Your task to perform on an android device: open a bookmark in the chrome app Image 0: 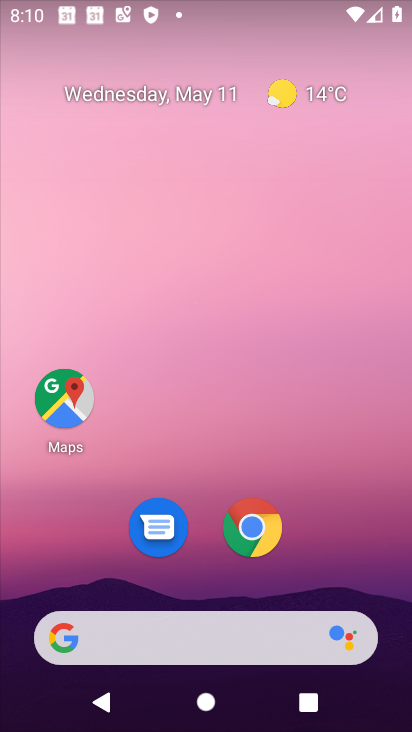
Step 0: click (275, 515)
Your task to perform on an android device: open a bookmark in the chrome app Image 1: 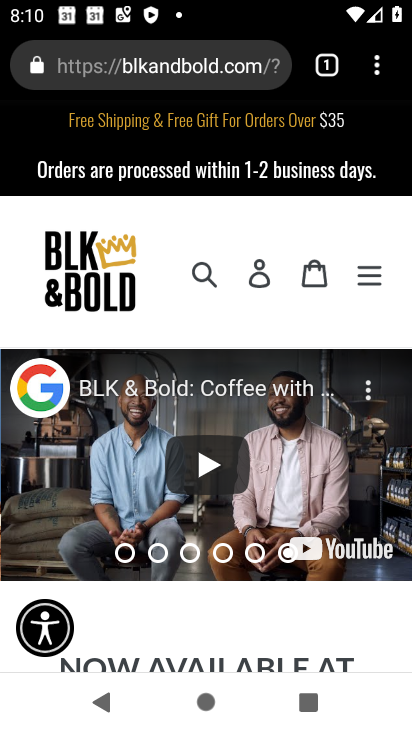
Step 1: click (389, 71)
Your task to perform on an android device: open a bookmark in the chrome app Image 2: 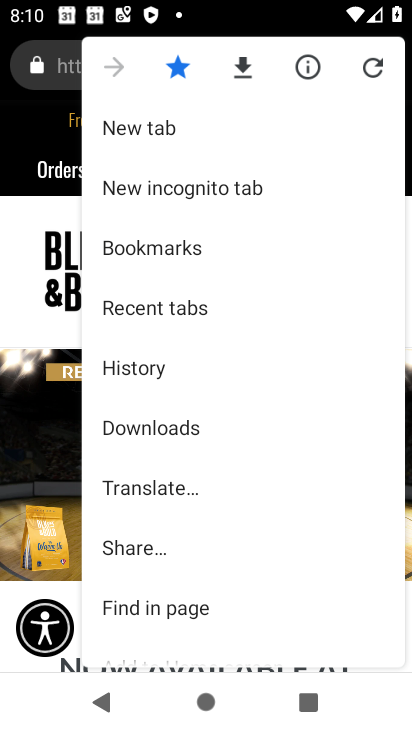
Step 2: click (230, 240)
Your task to perform on an android device: open a bookmark in the chrome app Image 3: 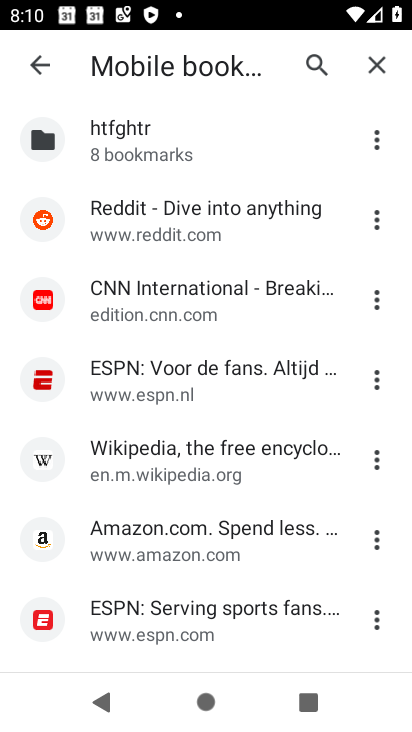
Step 3: click (196, 530)
Your task to perform on an android device: open a bookmark in the chrome app Image 4: 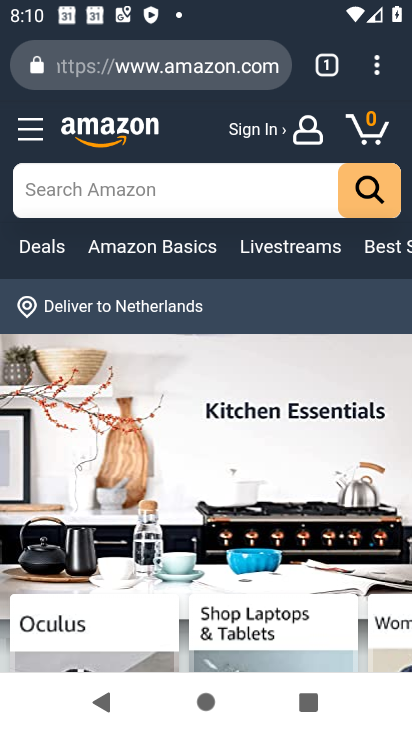
Step 4: task complete